Your task to perform on an android device: allow notifications from all sites in the chrome app Image 0: 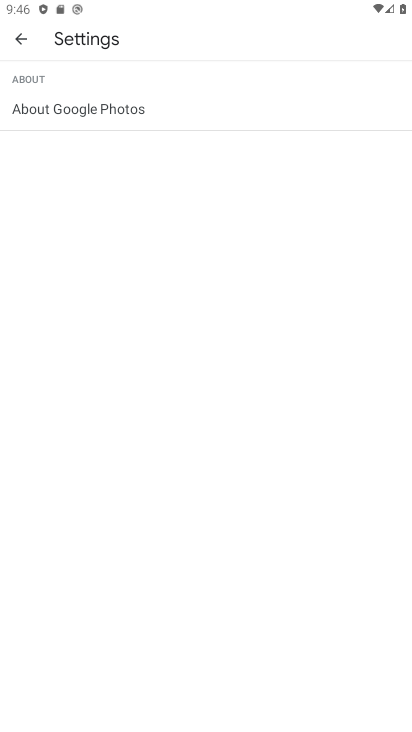
Step 0: press home button
Your task to perform on an android device: allow notifications from all sites in the chrome app Image 1: 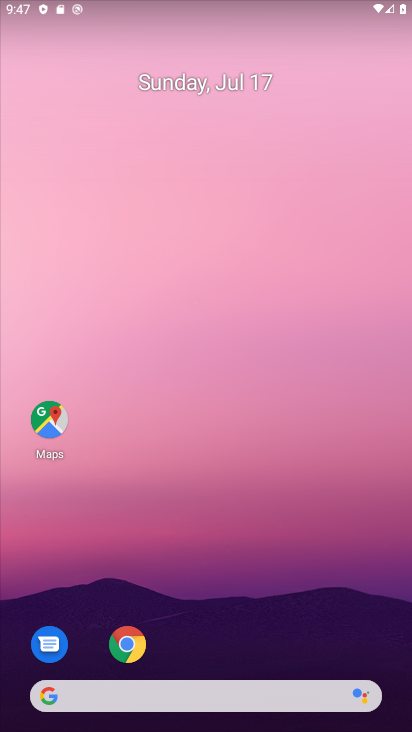
Step 1: drag from (357, 565) to (325, 8)
Your task to perform on an android device: allow notifications from all sites in the chrome app Image 2: 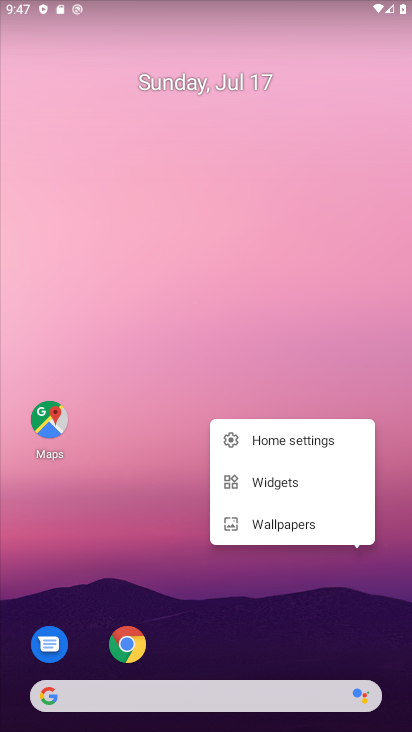
Step 2: click (289, 648)
Your task to perform on an android device: allow notifications from all sites in the chrome app Image 3: 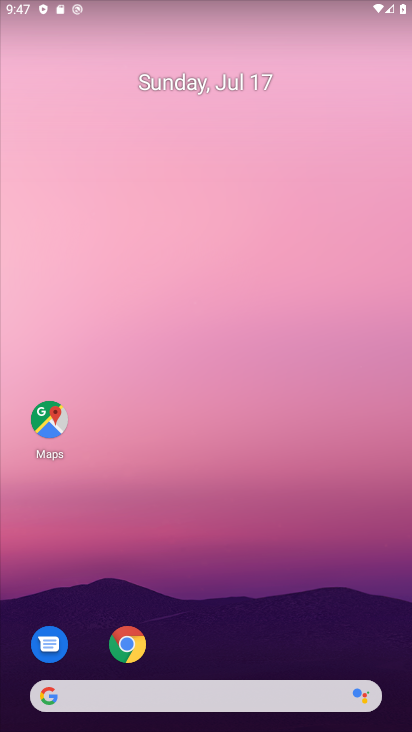
Step 3: drag from (315, 68) to (301, 11)
Your task to perform on an android device: allow notifications from all sites in the chrome app Image 4: 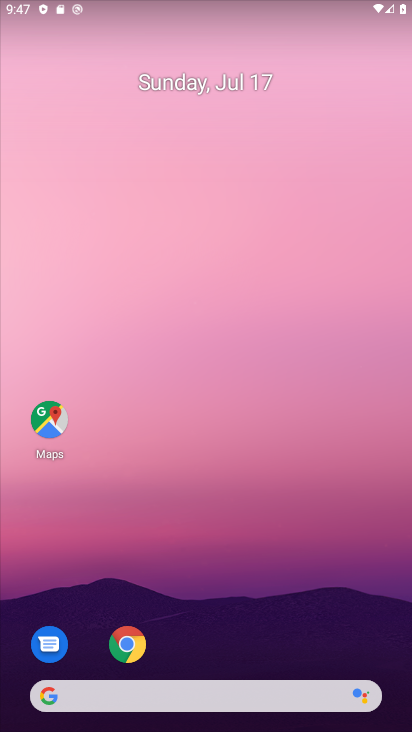
Step 4: drag from (225, 647) to (253, 31)
Your task to perform on an android device: allow notifications from all sites in the chrome app Image 5: 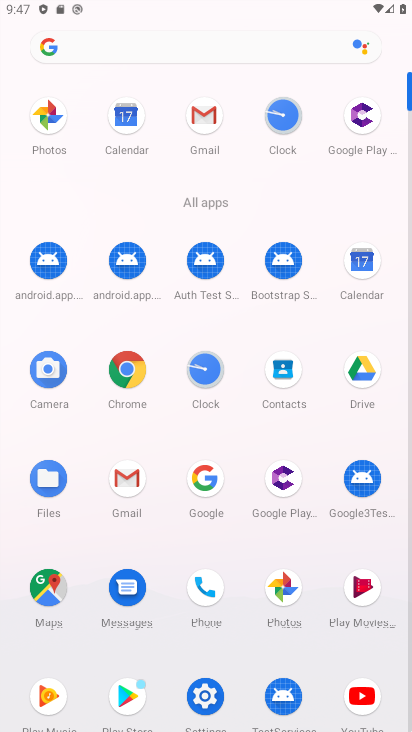
Step 5: click (141, 374)
Your task to perform on an android device: allow notifications from all sites in the chrome app Image 6: 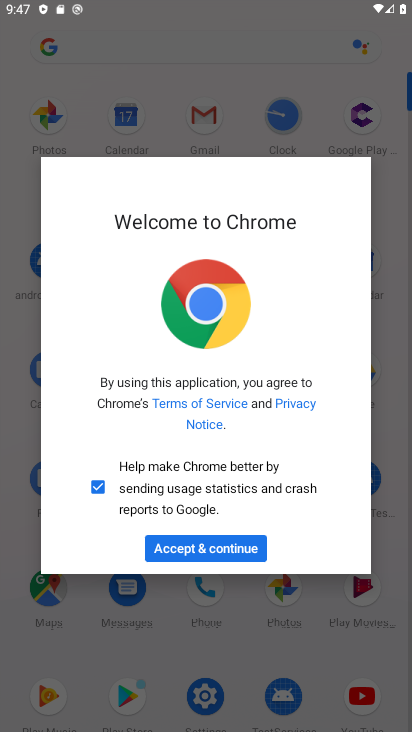
Step 6: click (168, 561)
Your task to perform on an android device: allow notifications from all sites in the chrome app Image 7: 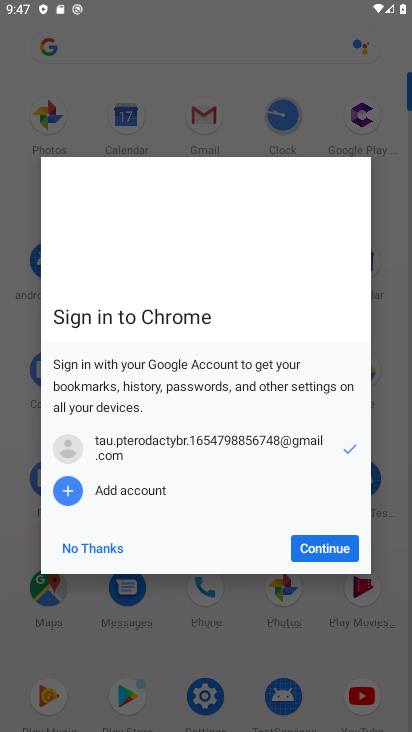
Step 7: click (81, 556)
Your task to perform on an android device: allow notifications from all sites in the chrome app Image 8: 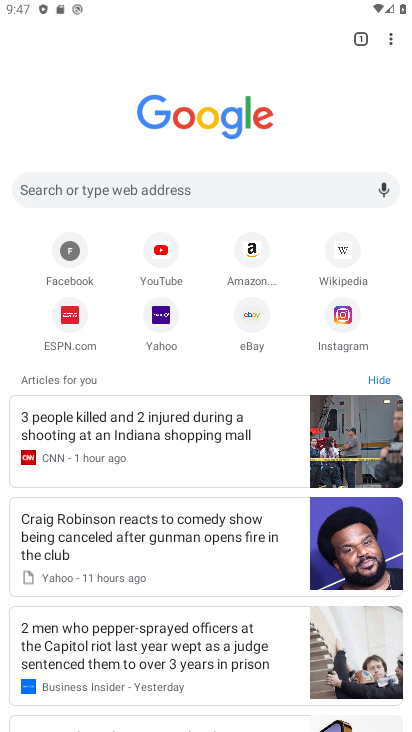
Step 8: drag from (388, 44) to (250, 321)
Your task to perform on an android device: allow notifications from all sites in the chrome app Image 9: 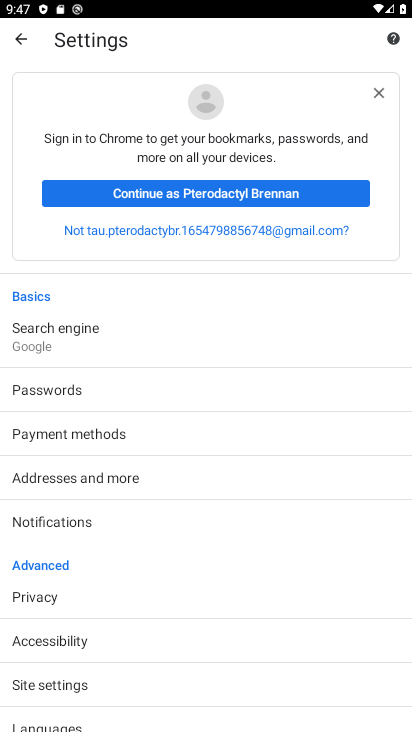
Step 9: drag from (152, 431) to (164, 250)
Your task to perform on an android device: allow notifications from all sites in the chrome app Image 10: 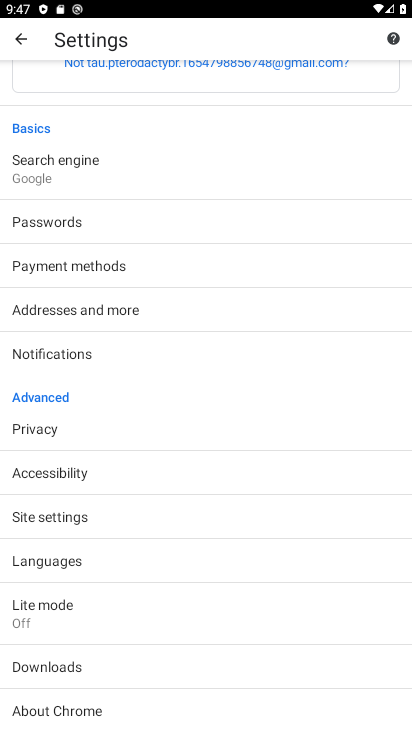
Step 10: drag from (176, 325) to (194, 616)
Your task to perform on an android device: allow notifications from all sites in the chrome app Image 11: 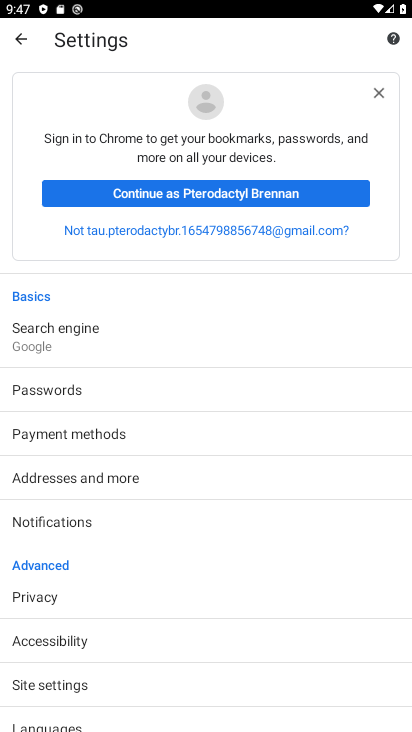
Step 11: drag from (192, 570) to (175, 165)
Your task to perform on an android device: allow notifications from all sites in the chrome app Image 12: 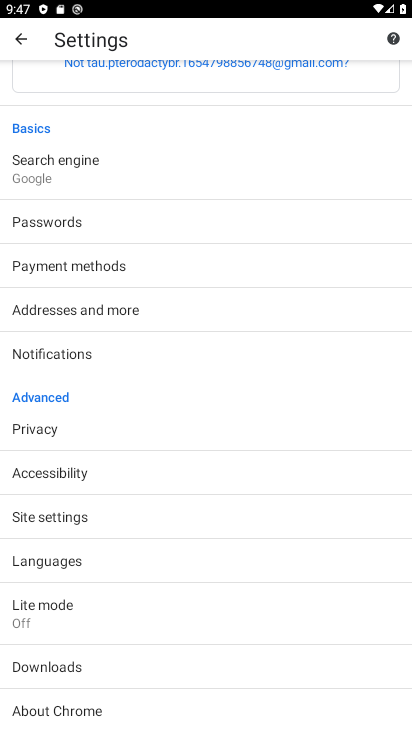
Step 12: click (58, 521)
Your task to perform on an android device: allow notifications from all sites in the chrome app Image 13: 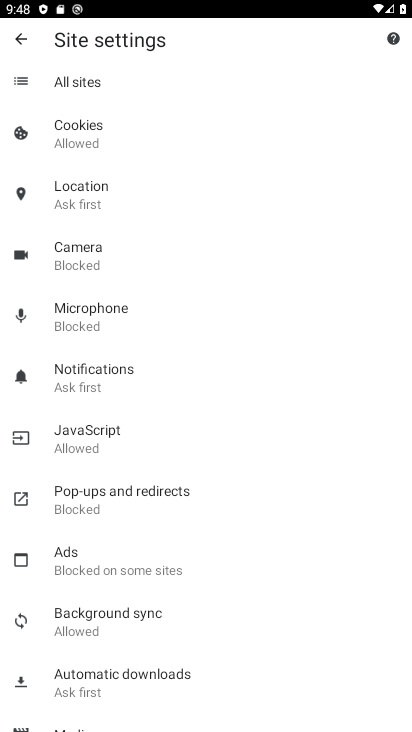
Step 13: click (81, 379)
Your task to perform on an android device: allow notifications from all sites in the chrome app Image 14: 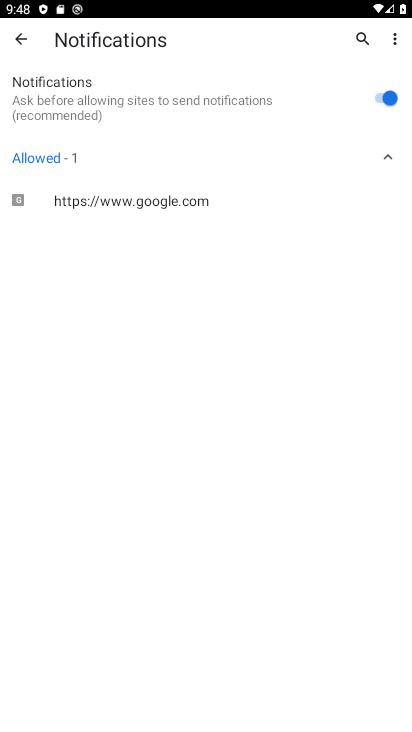
Step 14: click (23, 45)
Your task to perform on an android device: allow notifications from all sites in the chrome app Image 15: 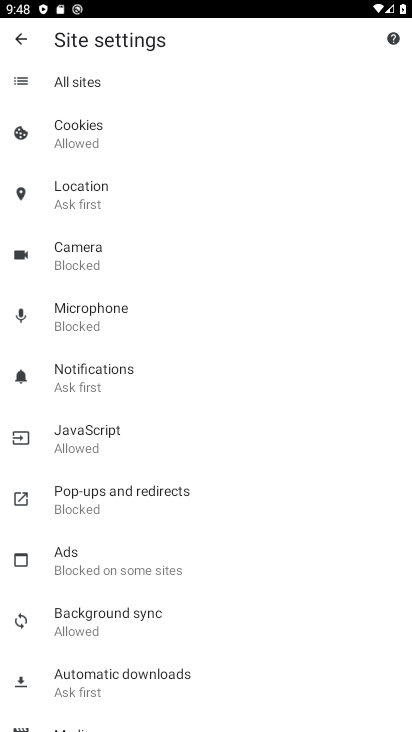
Step 15: click (66, 383)
Your task to perform on an android device: allow notifications from all sites in the chrome app Image 16: 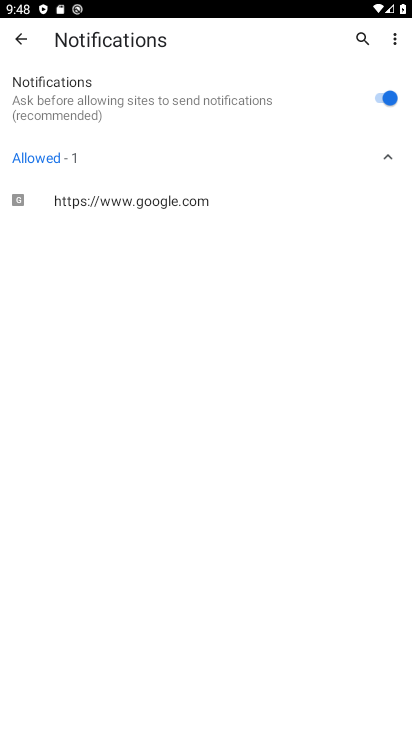
Step 16: task complete